Your task to perform on an android device: Open the calendar app, open the side menu, and click the "Day" option Image 0: 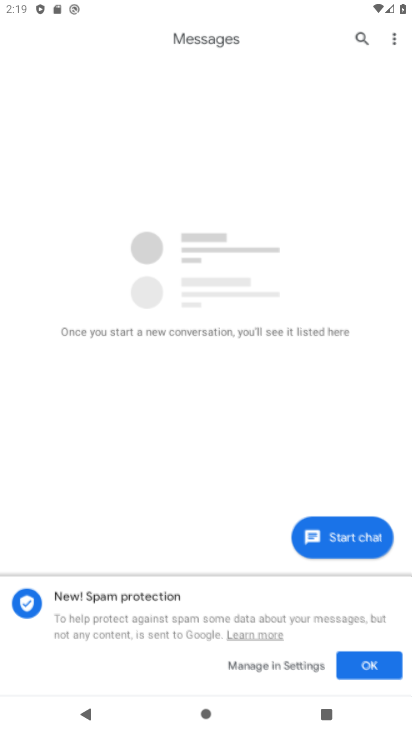
Step 0: drag from (318, 620) to (247, 25)
Your task to perform on an android device: Open the calendar app, open the side menu, and click the "Day" option Image 1: 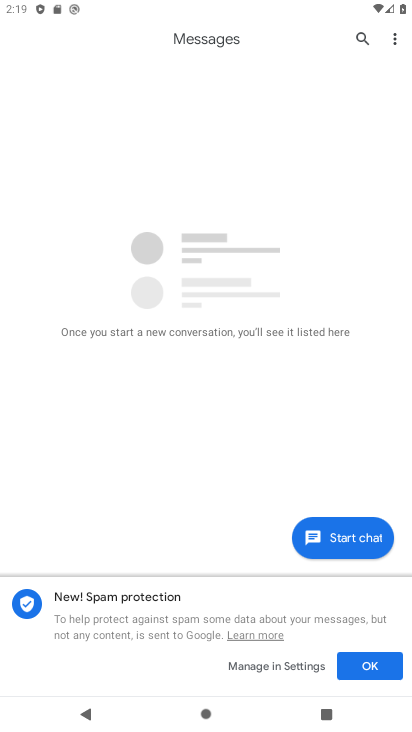
Step 1: press home button
Your task to perform on an android device: Open the calendar app, open the side menu, and click the "Day" option Image 2: 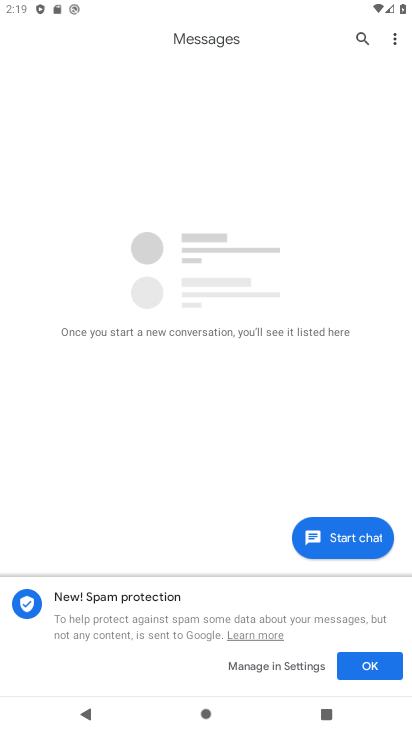
Step 2: drag from (247, 25) to (409, 456)
Your task to perform on an android device: Open the calendar app, open the side menu, and click the "Day" option Image 3: 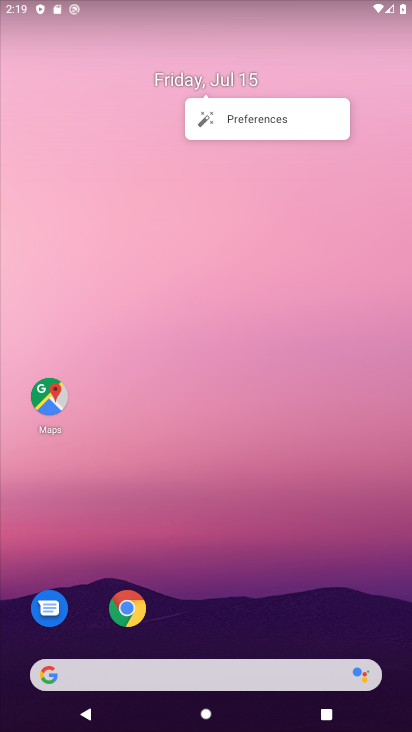
Step 3: drag from (380, 653) to (301, 198)
Your task to perform on an android device: Open the calendar app, open the side menu, and click the "Day" option Image 4: 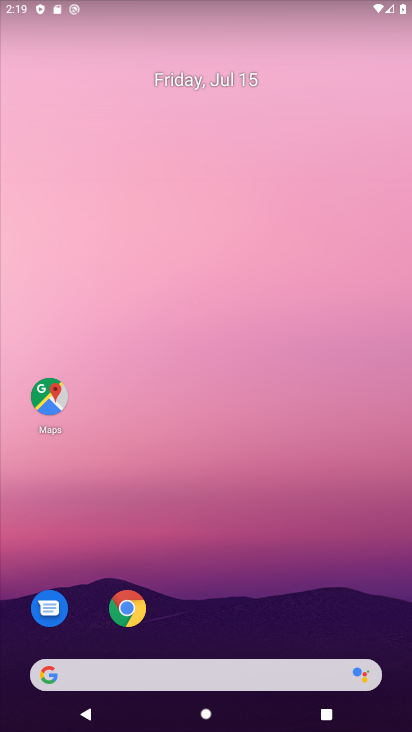
Step 4: drag from (362, 620) to (325, 131)
Your task to perform on an android device: Open the calendar app, open the side menu, and click the "Day" option Image 5: 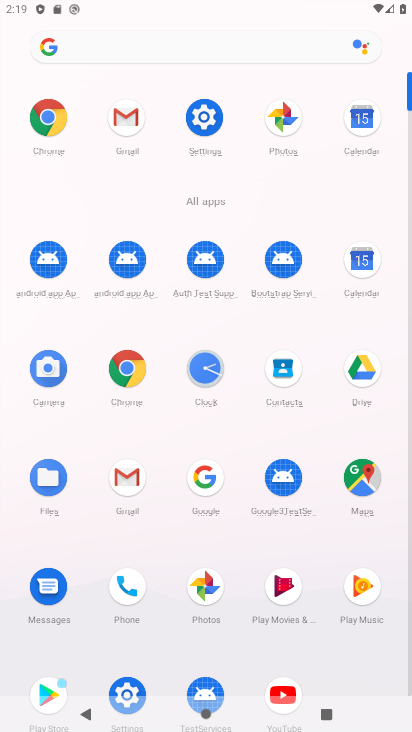
Step 5: click (366, 125)
Your task to perform on an android device: Open the calendar app, open the side menu, and click the "Day" option Image 6: 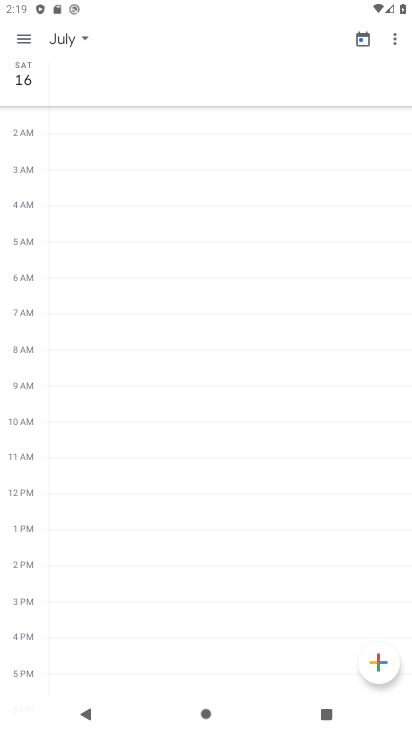
Step 6: click (26, 42)
Your task to perform on an android device: Open the calendar app, open the side menu, and click the "Day" option Image 7: 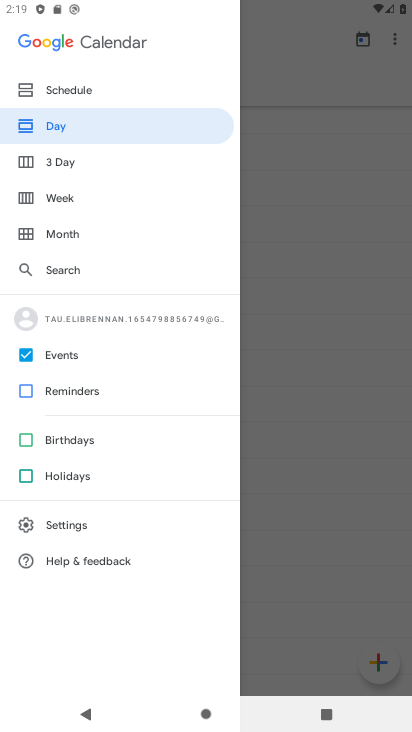
Step 7: click (65, 126)
Your task to perform on an android device: Open the calendar app, open the side menu, and click the "Day" option Image 8: 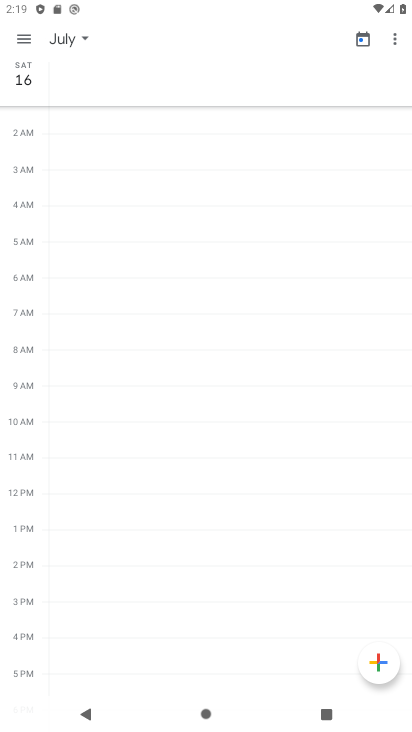
Step 8: task complete